Your task to perform on an android device: check storage Image 0: 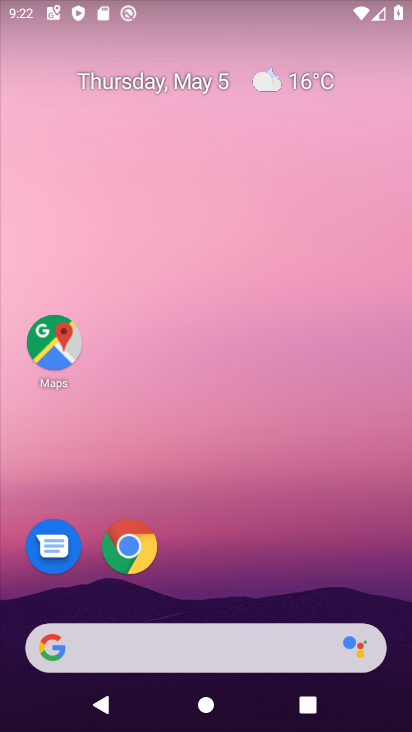
Step 0: drag from (211, 648) to (355, 46)
Your task to perform on an android device: check storage Image 1: 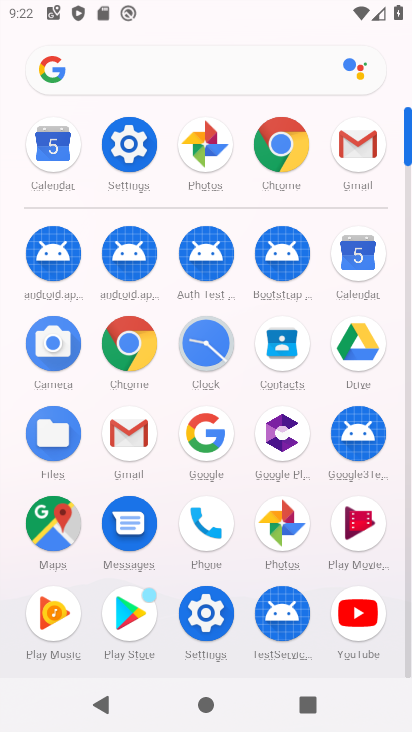
Step 1: click (133, 144)
Your task to perform on an android device: check storage Image 2: 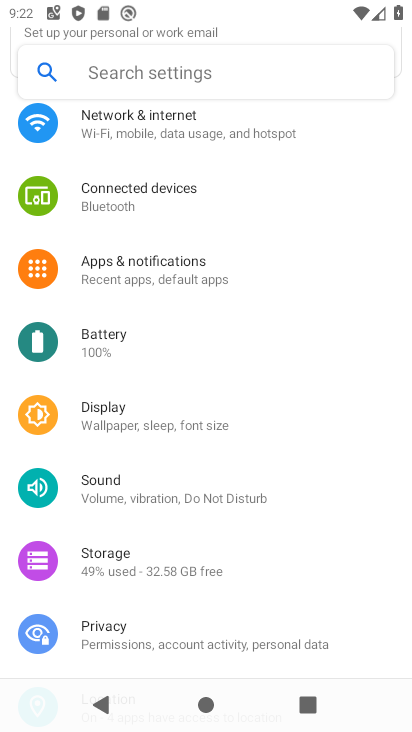
Step 2: click (144, 559)
Your task to perform on an android device: check storage Image 3: 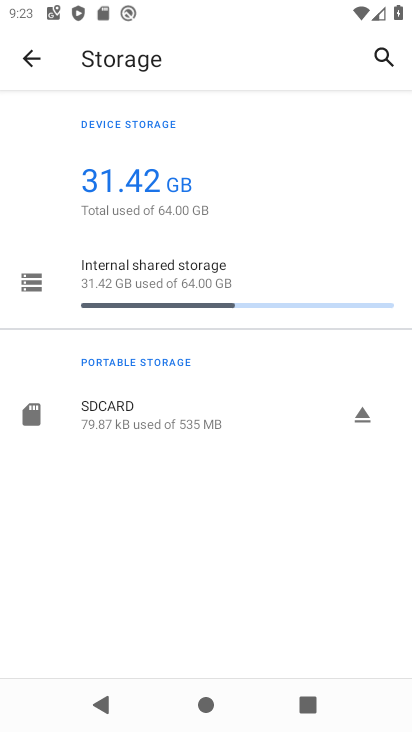
Step 3: task complete